Your task to perform on an android device: Open calendar and show me the fourth week of next month Image 0: 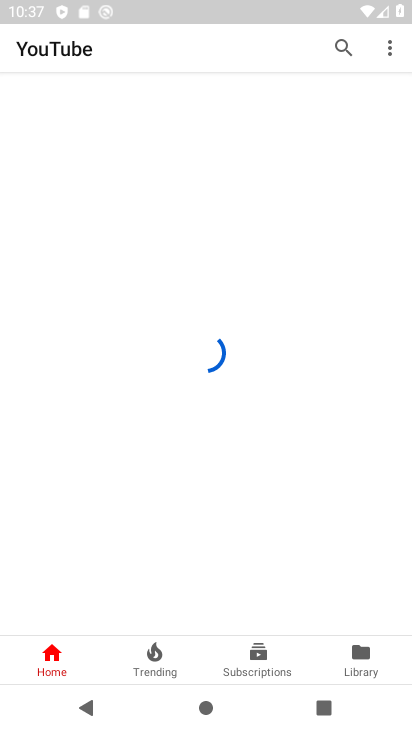
Step 0: drag from (214, 594) to (204, 104)
Your task to perform on an android device: Open calendar and show me the fourth week of next month Image 1: 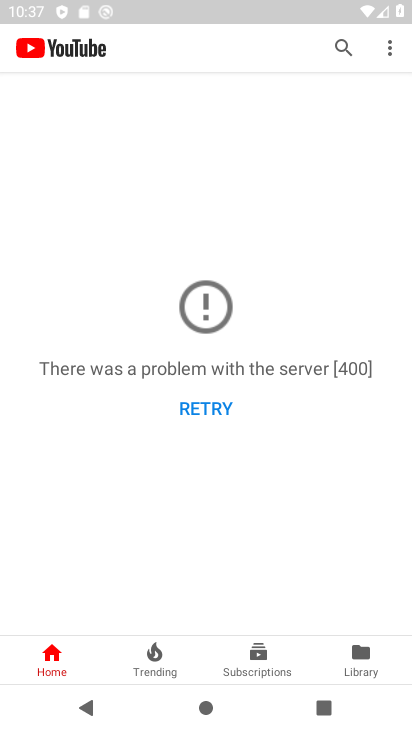
Step 1: press home button
Your task to perform on an android device: Open calendar and show me the fourth week of next month Image 2: 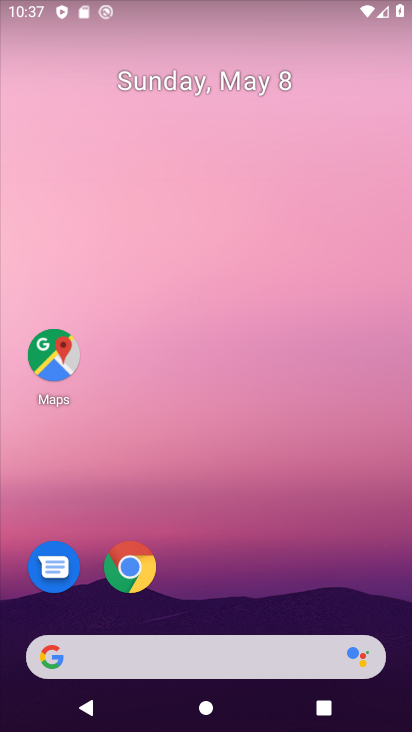
Step 2: drag from (205, 614) to (237, 98)
Your task to perform on an android device: Open calendar and show me the fourth week of next month Image 3: 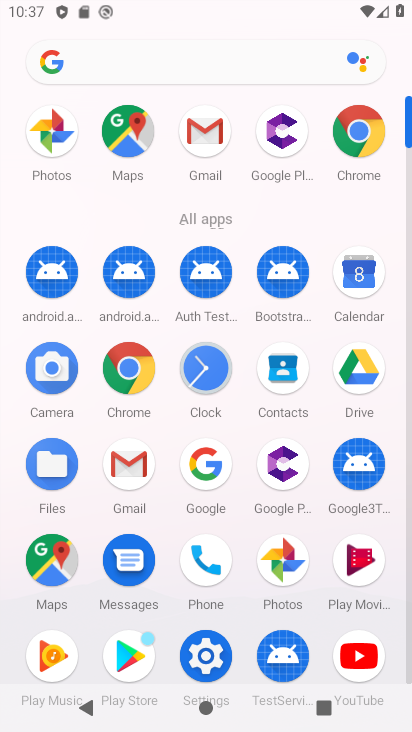
Step 3: click (360, 267)
Your task to perform on an android device: Open calendar and show me the fourth week of next month Image 4: 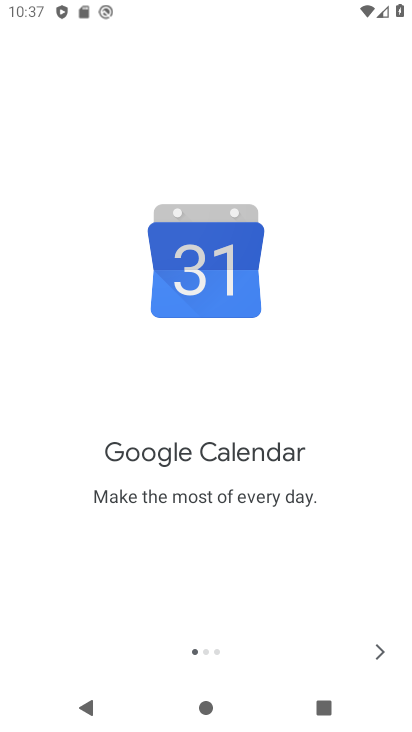
Step 4: click (389, 638)
Your task to perform on an android device: Open calendar and show me the fourth week of next month Image 5: 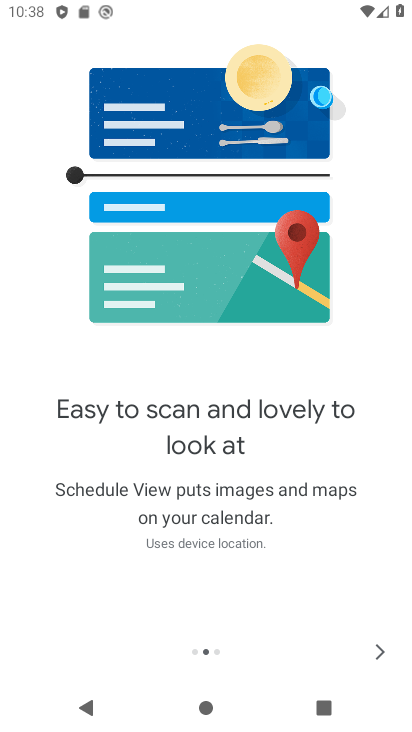
Step 5: click (380, 659)
Your task to perform on an android device: Open calendar and show me the fourth week of next month Image 6: 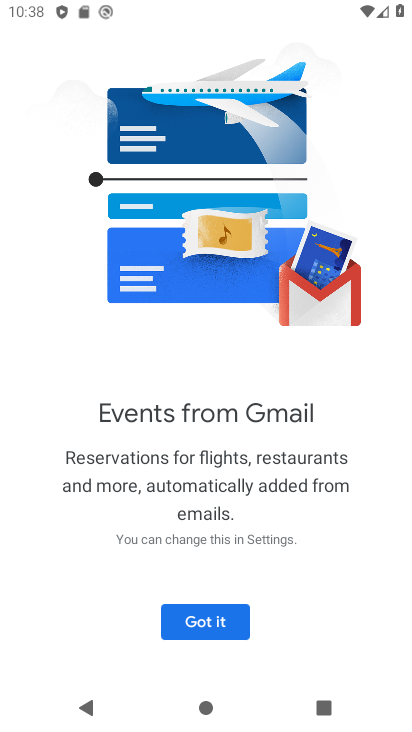
Step 6: click (197, 613)
Your task to perform on an android device: Open calendar and show me the fourth week of next month Image 7: 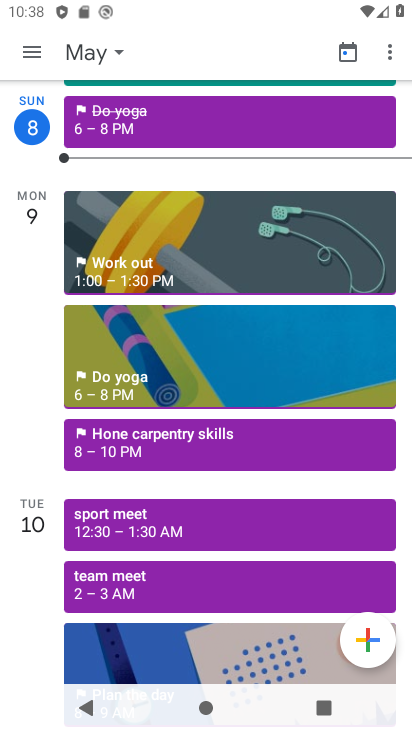
Step 7: click (38, 52)
Your task to perform on an android device: Open calendar and show me the fourth week of next month Image 8: 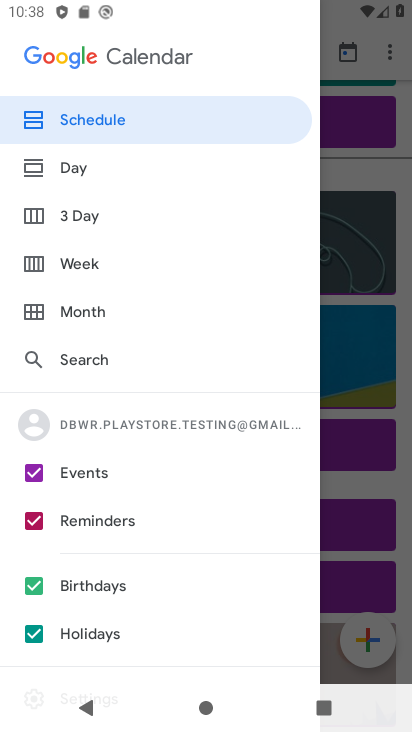
Step 8: click (53, 261)
Your task to perform on an android device: Open calendar and show me the fourth week of next month Image 9: 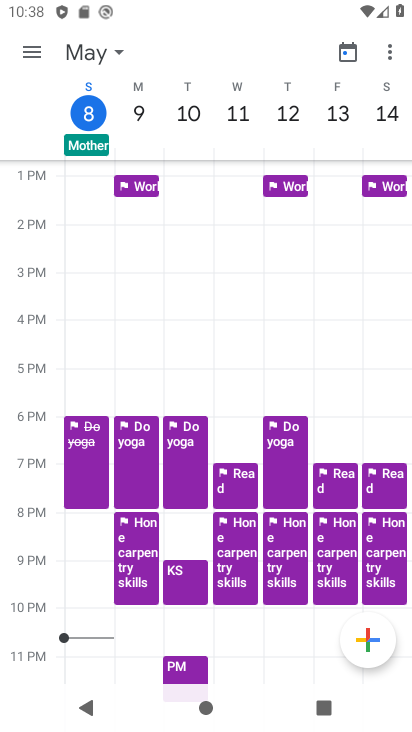
Step 9: drag from (384, 100) to (65, 107)
Your task to perform on an android device: Open calendar and show me the fourth week of next month Image 10: 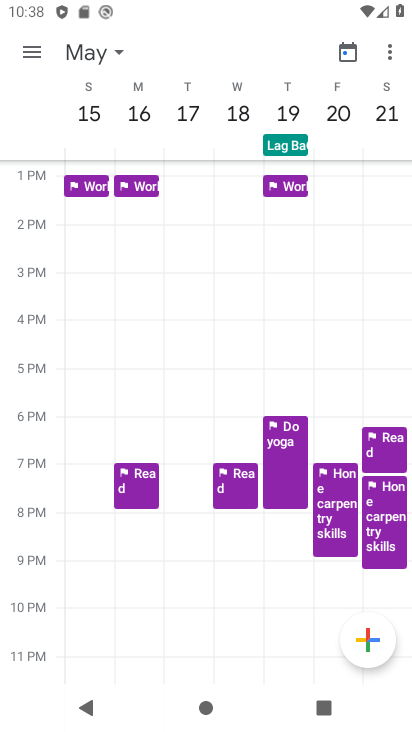
Step 10: drag from (387, 115) to (58, 113)
Your task to perform on an android device: Open calendar and show me the fourth week of next month Image 11: 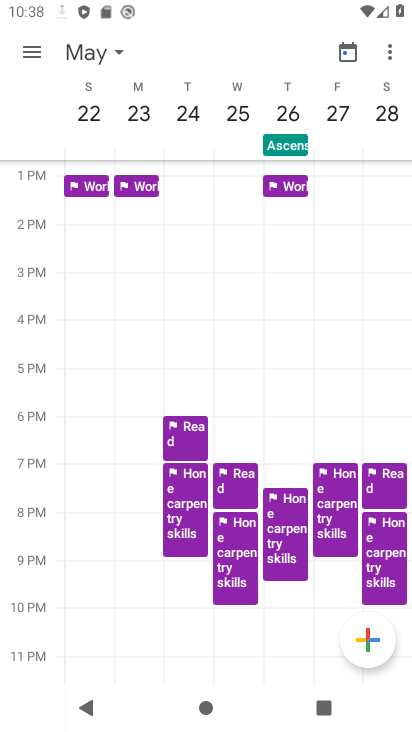
Step 11: drag from (387, 115) to (39, 110)
Your task to perform on an android device: Open calendar and show me the fourth week of next month Image 12: 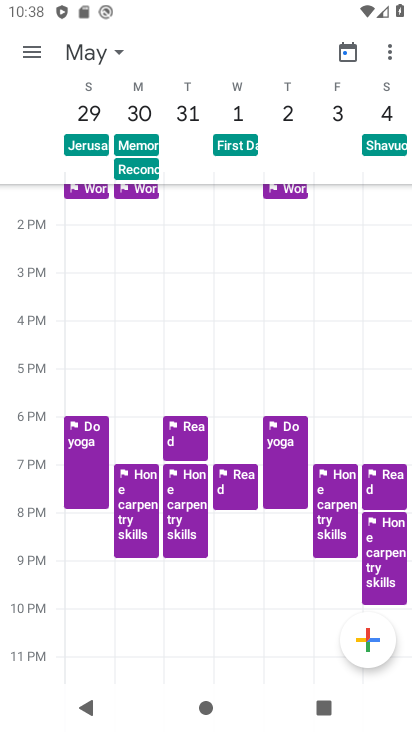
Step 12: drag from (380, 105) to (90, 116)
Your task to perform on an android device: Open calendar and show me the fourth week of next month Image 13: 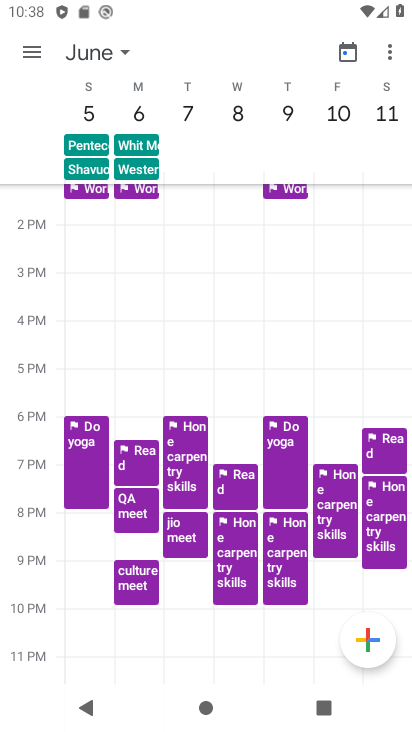
Step 13: drag from (393, 104) to (38, 104)
Your task to perform on an android device: Open calendar and show me the fourth week of next month Image 14: 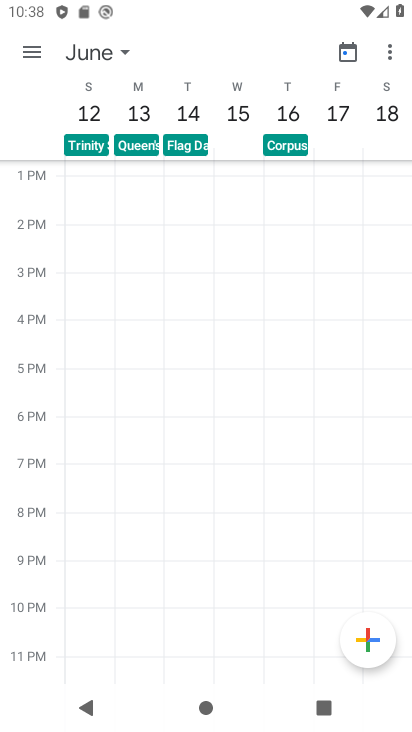
Step 14: drag from (379, 111) to (30, 124)
Your task to perform on an android device: Open calendar and show me the fourth week of next month Image 15: 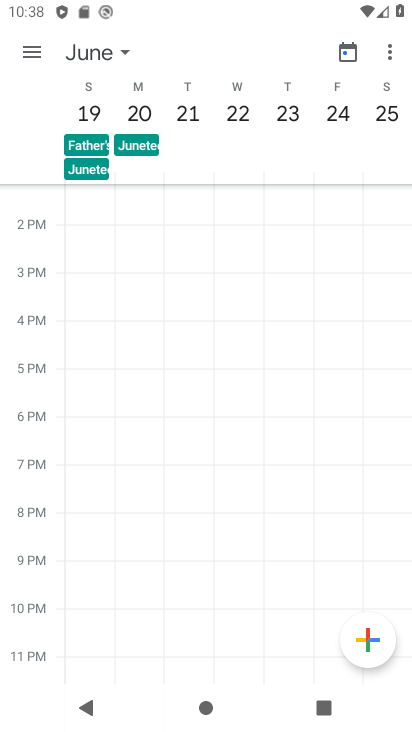
Step 15: drag from (389, 106) to (16, 107)
Your task to perform on an android device: Open calendar and show me the fourth week of next month Image 16: 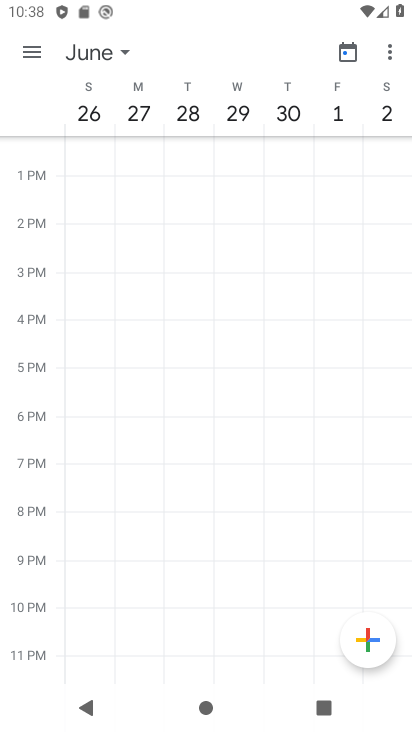
Step 16: click (85, 114)
Your task to perform on an android device: Open calendar and show me the fourth week of next month Image 17: 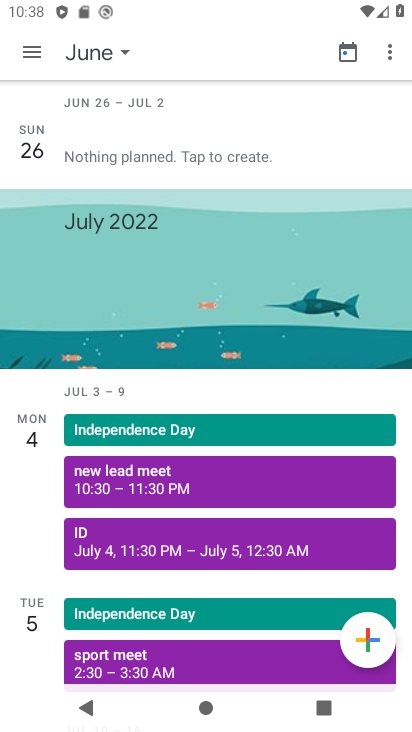
Step 17: task complete